Your task to perform on an android device: Open my contact list Image 0: 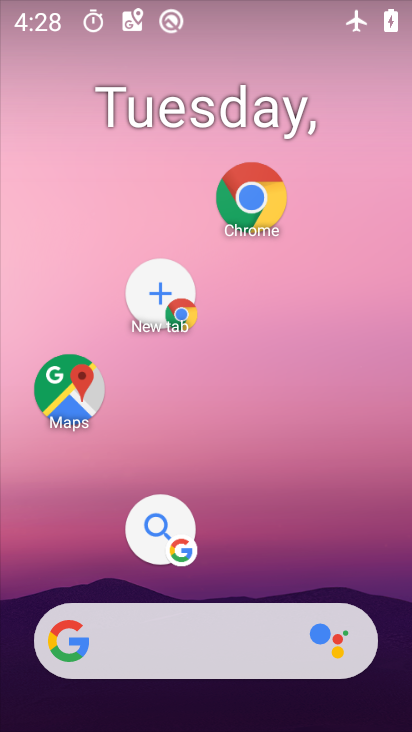
Step 0: drag from (245, 398) to (250, 205)
Your task to perform on an android device: Open my contact list Image 1: 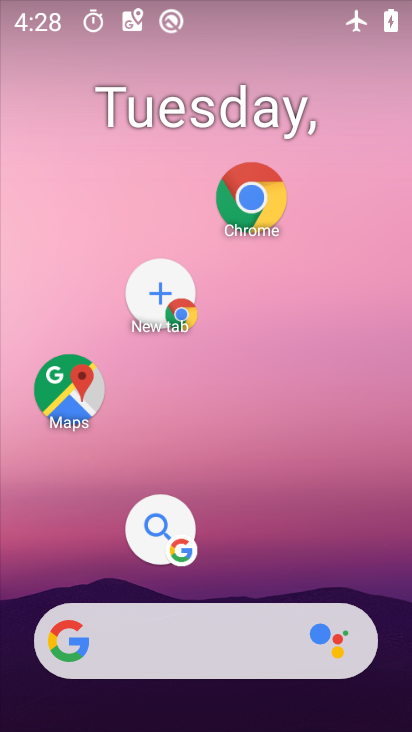
Step 1: drag from (221, 600) to (268, 208)
Your task to perform on an android device: Open my contact list Image 2: 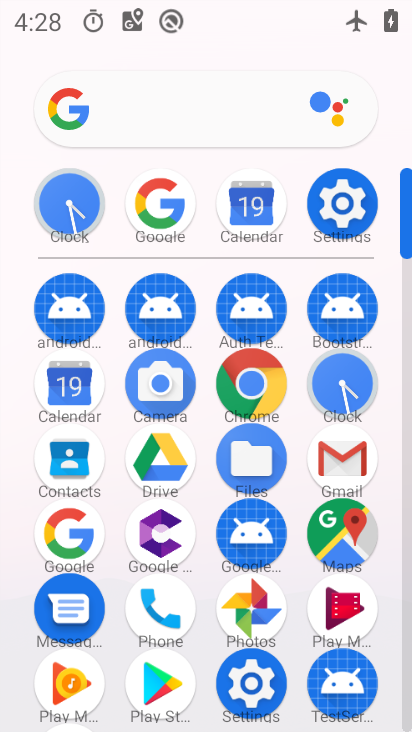
Step 2: click (72, 474)
Your task to perform on an android device: Open my contact list Image 3: 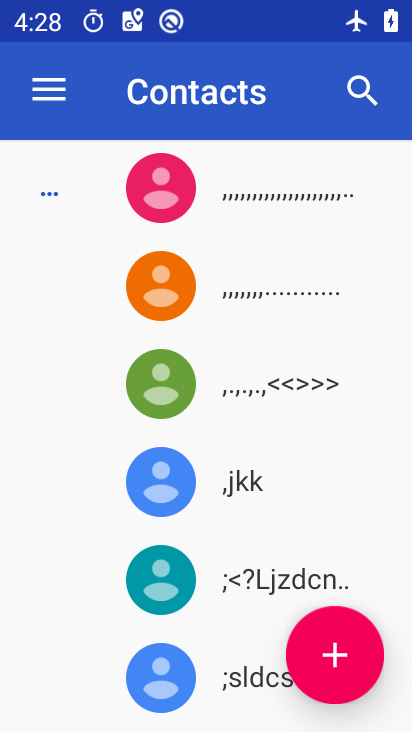
Step 3: task complete